Your task to perform on an android device: delete location history Image 0: 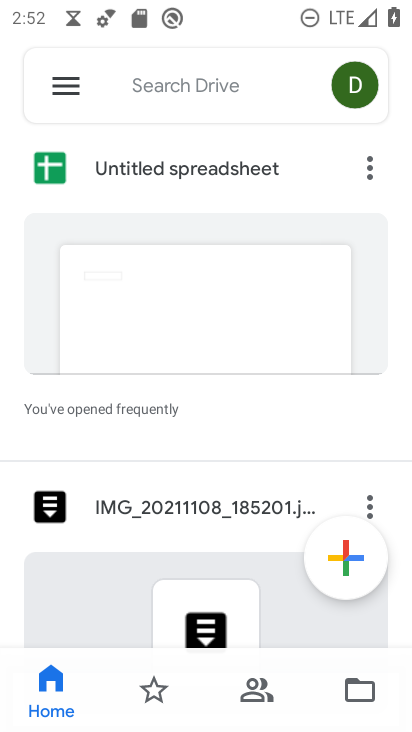
Step 0: press home button
Your task to perform on an android device: delete location history Image 1: 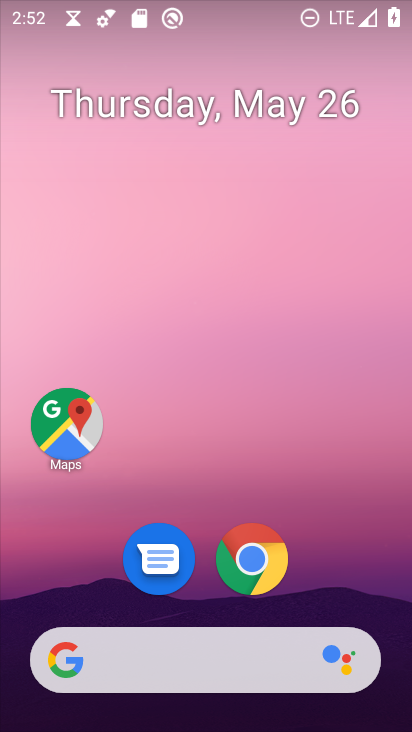
Step 1: click (68, 450)
Your task to perform on an android device: delete location history Image 2: 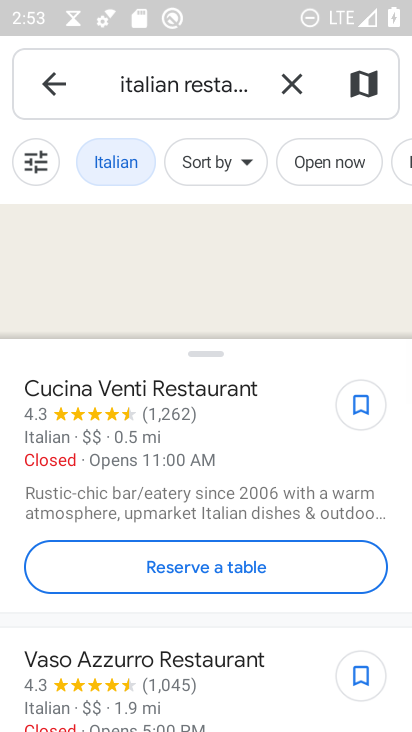
Step 2: click (57, 84)
Your task to perform on an android device: delete location history Image 3: 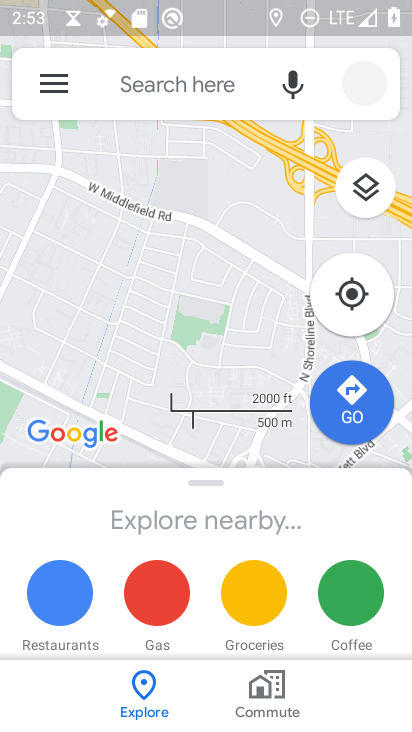
Step 3: click (57, 84)
Your task to perform on an android device: delete location history Image 4: 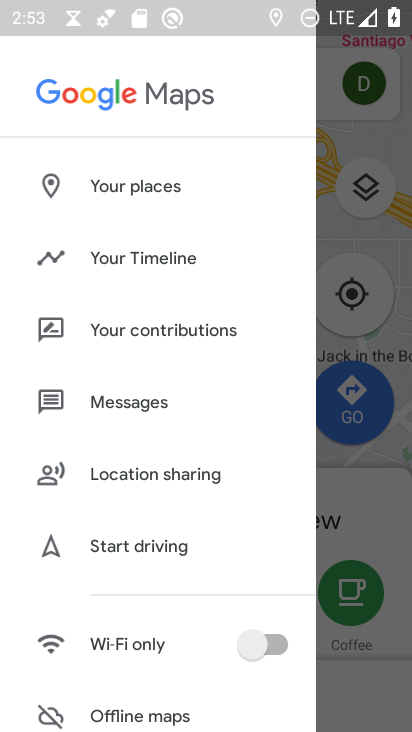
Step 4: click (117, 258)
Your task to perform on an android device: delete location history Image 5: 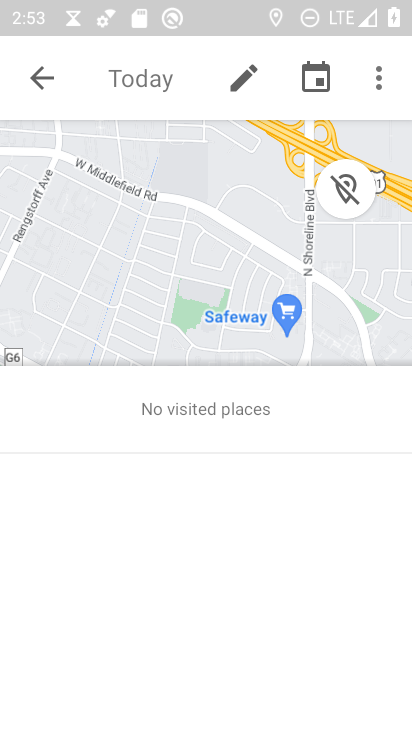
Step 5: click (376, 76)
Your task to perform on an android device: delete location history Image 6: 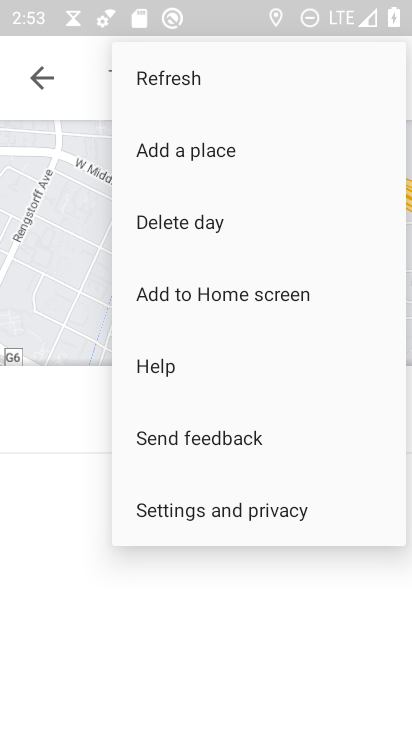
Step 6: click (238, 514)
Your task to perform on an android device: delete location history Image 7: 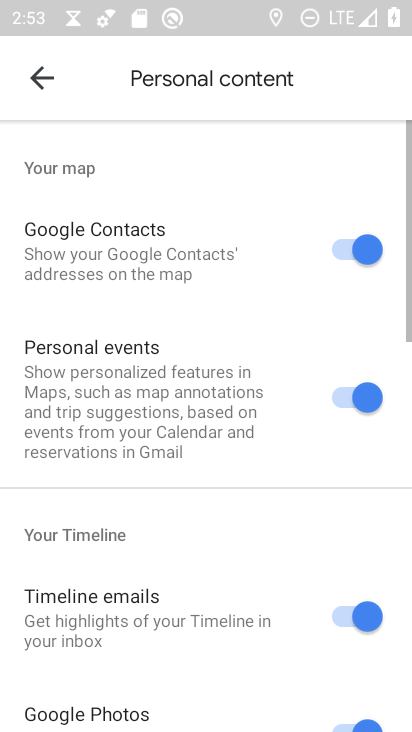
Step 7: drag from (193, 697) to (387, 58)
Your task to perform on an android device: delete location history Image 8: 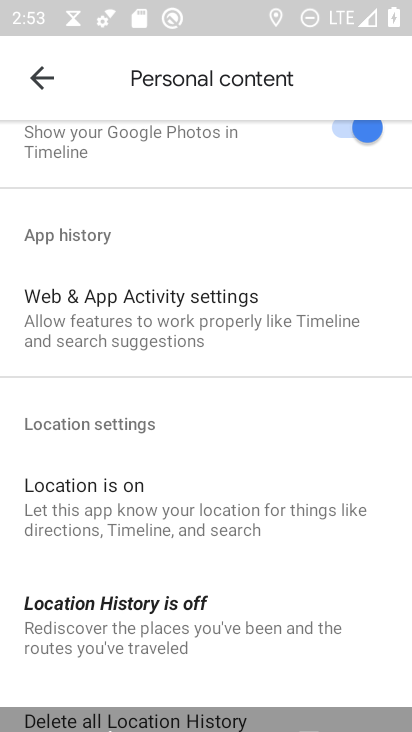
Step 8: drag from (207, 606) to (411, 154)
Your task to perform on an android device: delete location history Image 9: 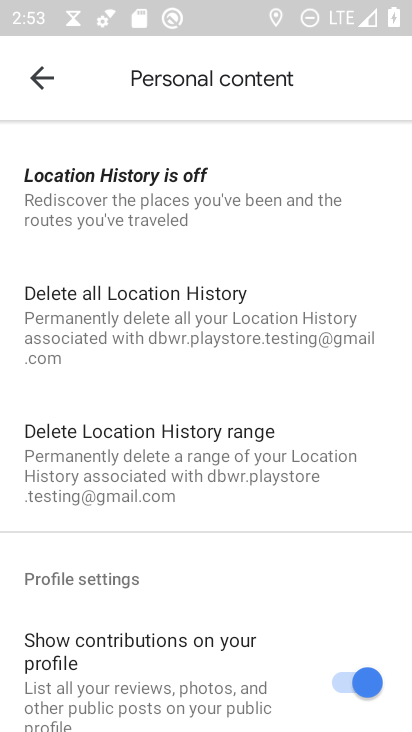
Step 9: click (191, 328)
Your task to perform on an android device: delete location history Image 10: 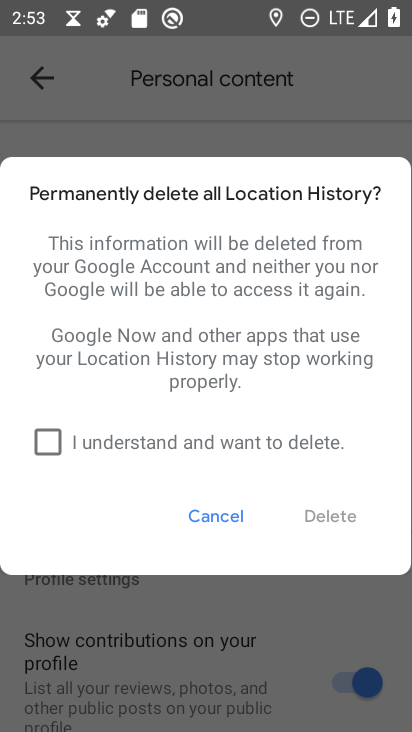
Step 10: click (48, 436)
Your task to perform on an android device: delete location history Image 11: 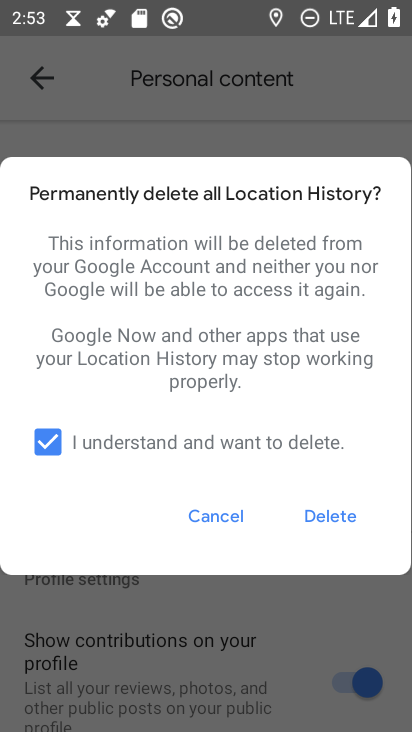
Step 11: click (332, 508)
Your task to perform on an android device: delete location history Image 12: 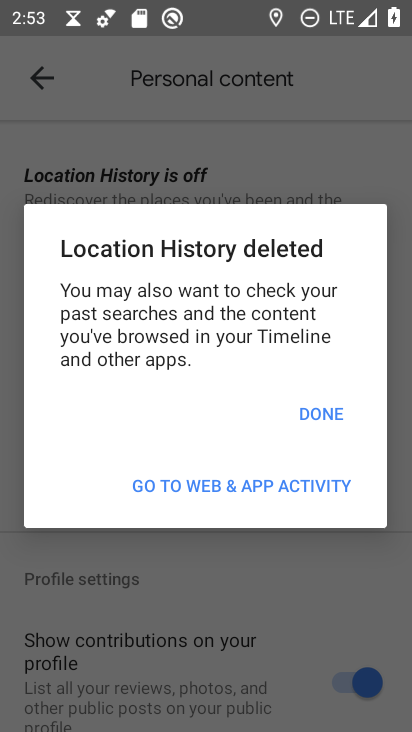
Step 12: click (334, 407)
Your task to perform on an android device: delete location history Image 13: 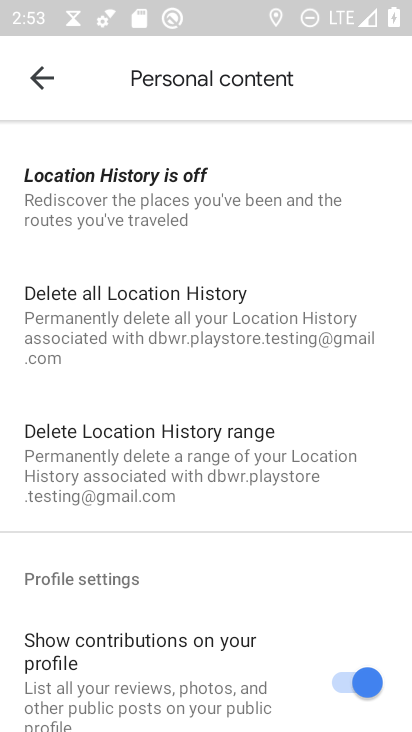
Step 13: task complete